Your task to perform on an android device: turn on the 12-hour format for clock Image 0: 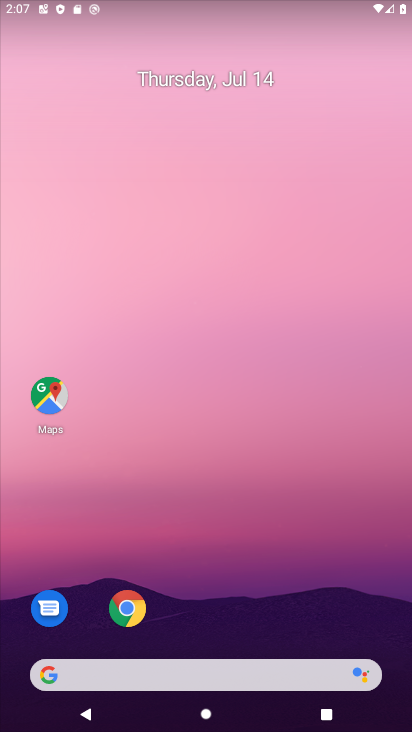
Step 0: drag from (252, 567) to (261, 268)
Your task to perform on an android device: turn on the 12-hour format for clock Image 1: 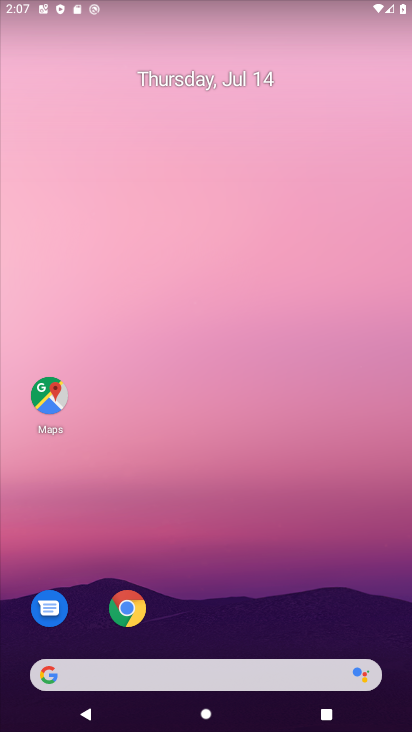
Step 1: drag from (231, 660) to (245, 116)
Your task to perform on an android device: turn on the 12-hour format for clock Image 2: 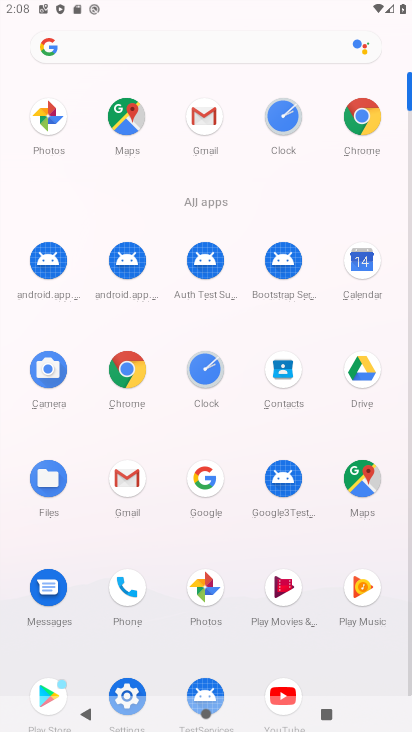
Step 2: click (208, 374)
Your task to perform on an android device: turn on the 12-hour format for clock Image 3: 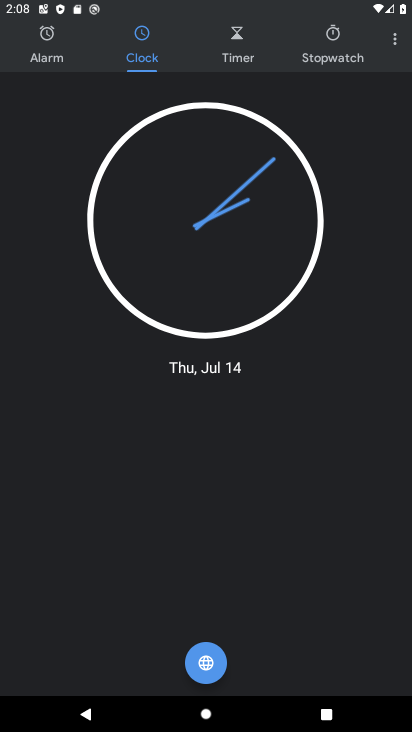
Step 3: click (387, 35)
Your task to perform on an android device: turn on the 12-hour format for clock Image 4: 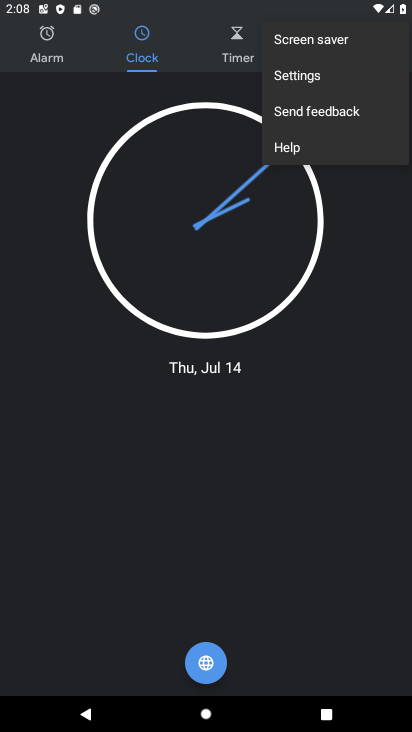
Step 4: click (318, 70)
Your task to perform on an android device: turn on the 12-hour format for clock Image 5: 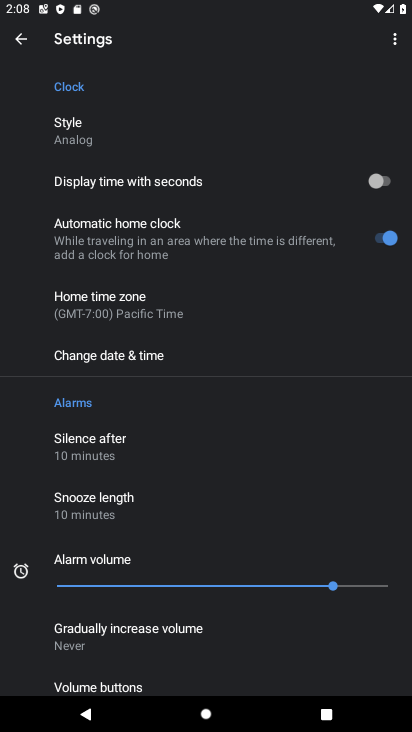
Step 5: click (96, 356)
Your task to perform on an android device: turn on the 12-hour format for clock Image 6: 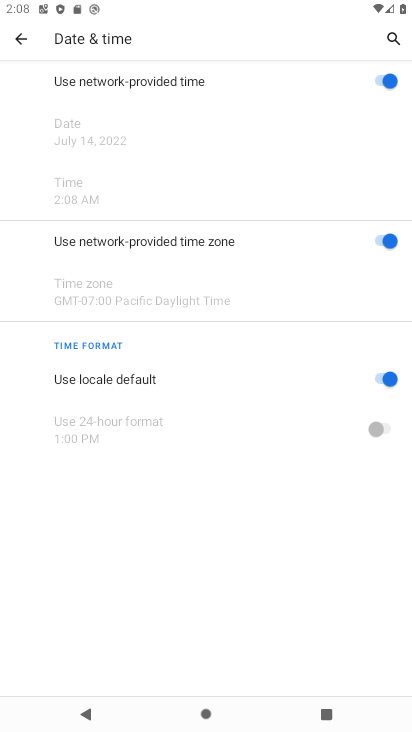
Step 6: task complete